Your task to perform on an android device: open wifi settings Image 0: 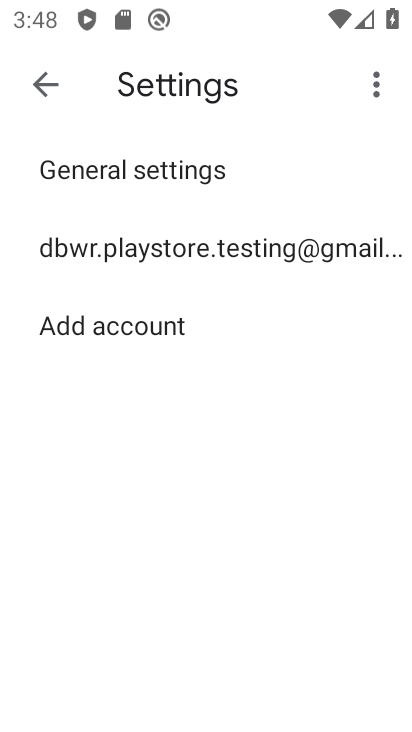
Step 0: press back button
Your task to perform on an android device: open wifi settings Image 1: 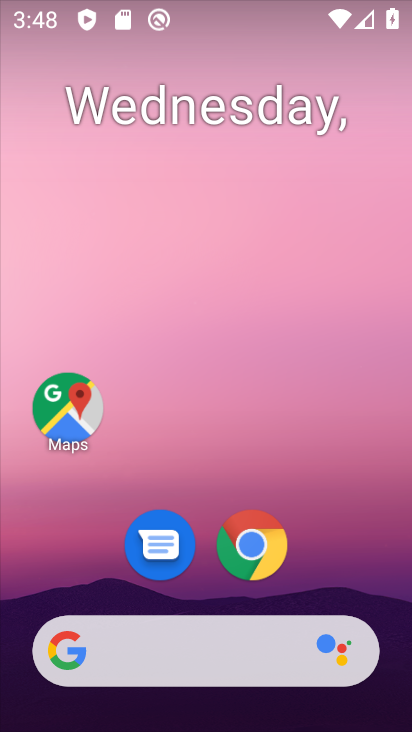
Step 1: drag from (345, 526) to (270, 150)
Your task to perform on an android device: open wifi settings Image 2: 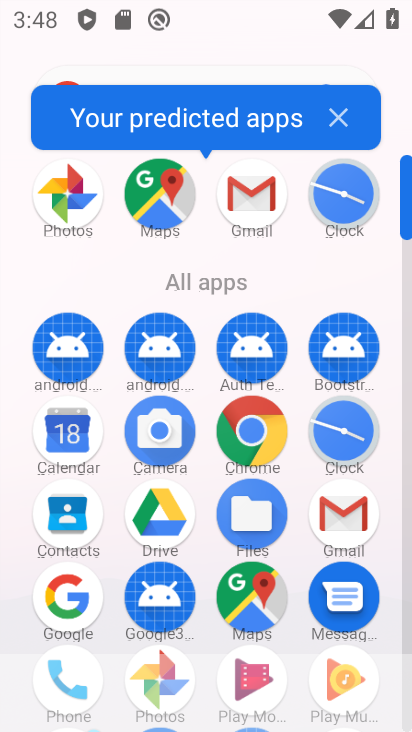
Step 2: drag from (184, 563) to (191, 273)
Your task to perform on an android device: open wifi settings Image 3: 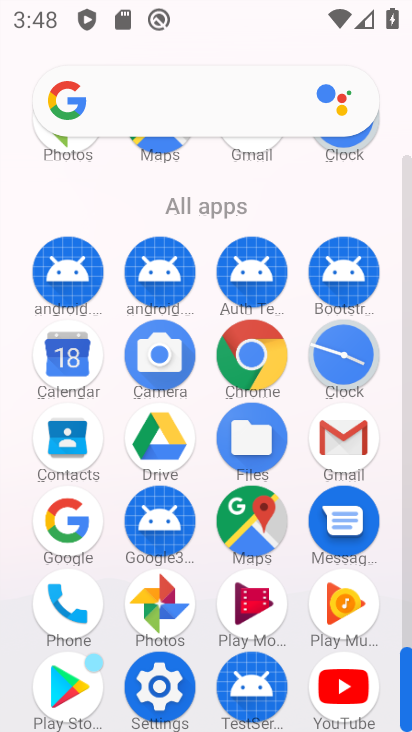
Step 3: click (156, 681)
Your task to perform on an android device: open wifi settings Image 4: 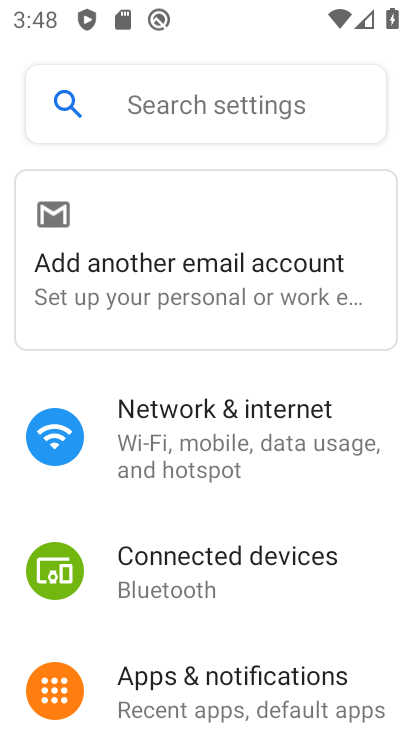
Step 4: click (230, 408)
Your task to perform on an android device: open wifi settings Image 5: 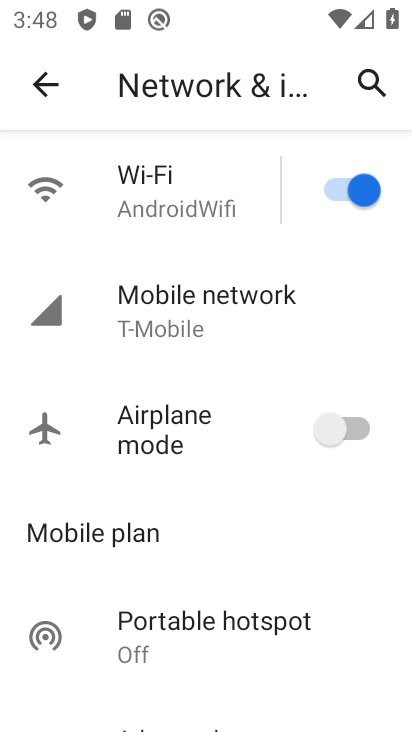
Step 5: click (130, 185)
Your task to perform on an android device: open wifi settings Image 6: 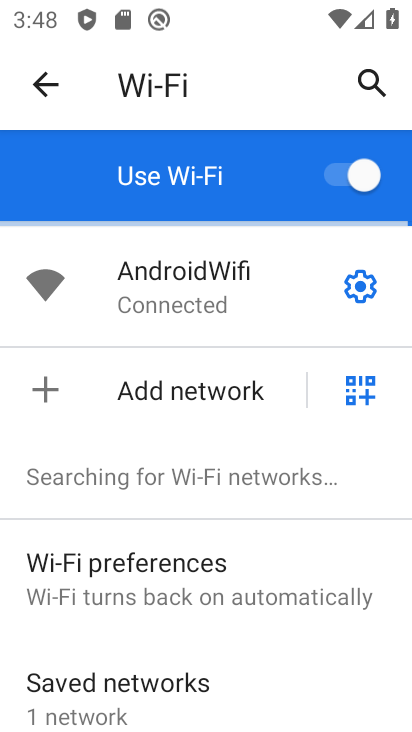
Step 6: click (357, 285)
Your task to perform on an android device: open wifi settings Image 7: 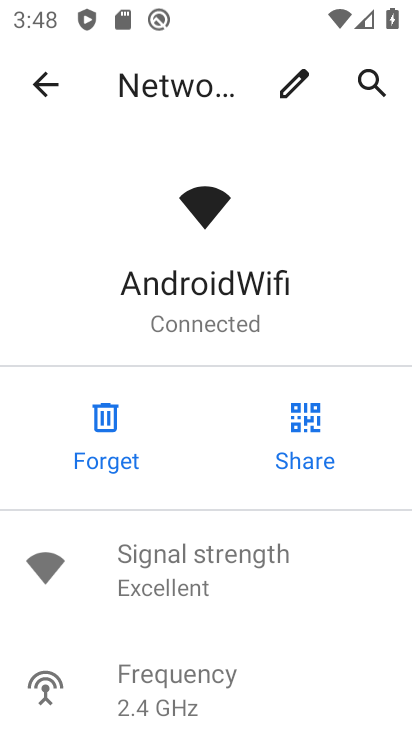
Step 7: task complete